Your task to perform on an android device: Check the news Image 0: 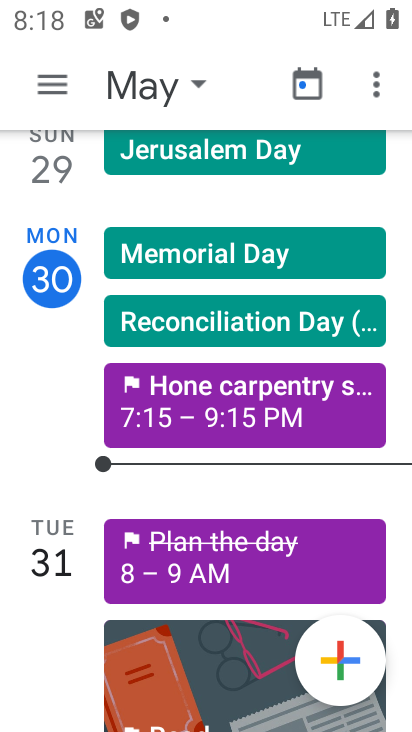
Step 0: press home button
Your task to perform on an android device: Check the news Image 1: 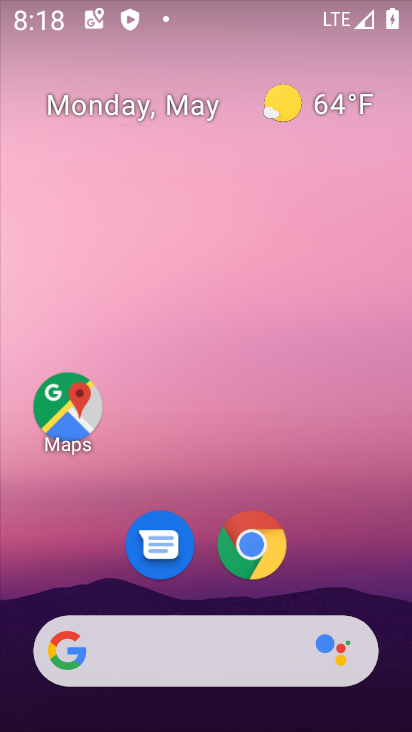
Step 1: task complete